Your task to perform on an android device: What's on my calendar today? Image 0: 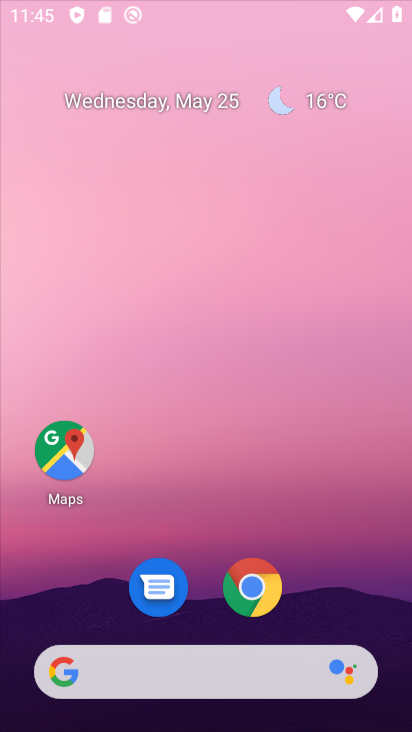
Step 0: click (303, 319)
Your task to perform on an android device: What's on my calendar today? Image 1: 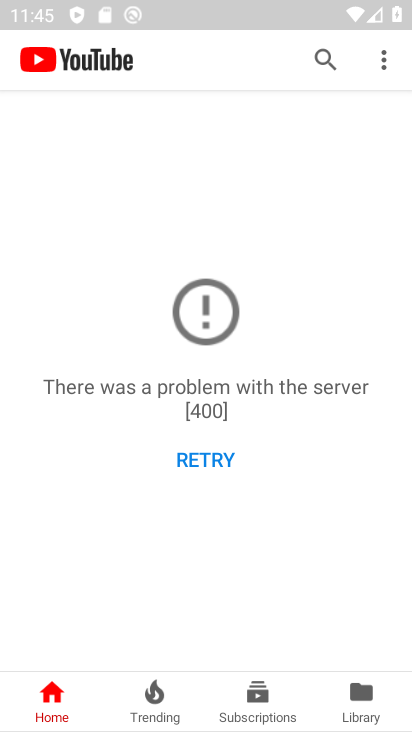
Step 1: press back button
Your task to perform on an android device: What's on my calendar today? Image 2: 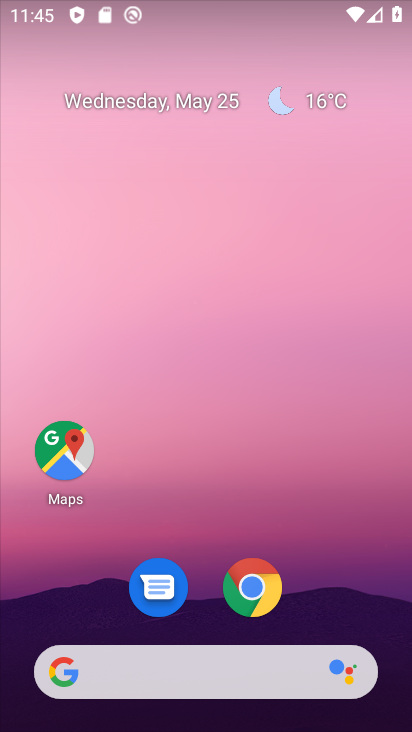
Step 2: drag from (166, 658) to (198, 292)
Your task to perform on an android device: What's on my calendar today? Image 3: 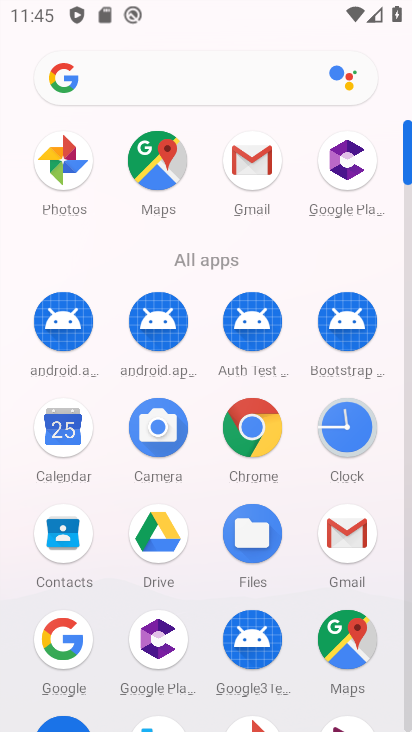
Step 3: click (60, 460)
Your task to perform on an android device: What's on my calendar today? Image 4: 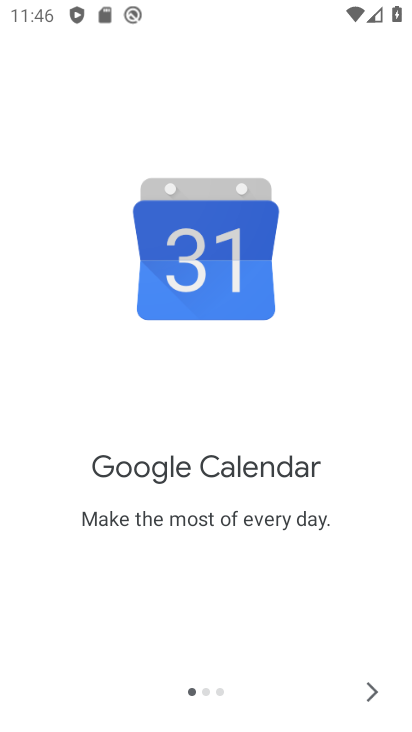
Step 4: click (303, 432)
Your task to perform on an android device: What's on my calendar today? Image 5: 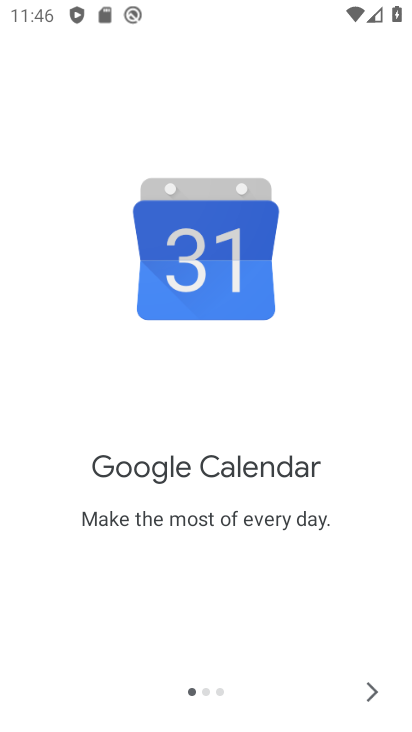
Step 5: click (361, 689)
Your task to perform on an android device: What's on my calendar today? Image 6: 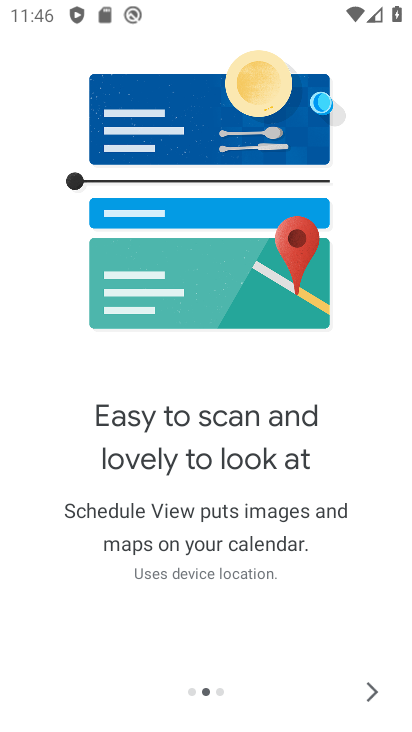
Step 6: click (361, 689)
Your task to perform on an android device: What's on my calendar today? Image 7: 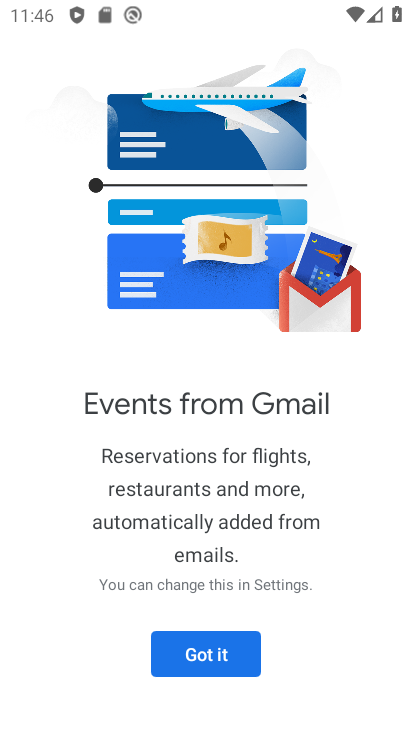
Step 7: click (202, 657)
Your task to perform on an android device: What's on my calendar today? Image 8: 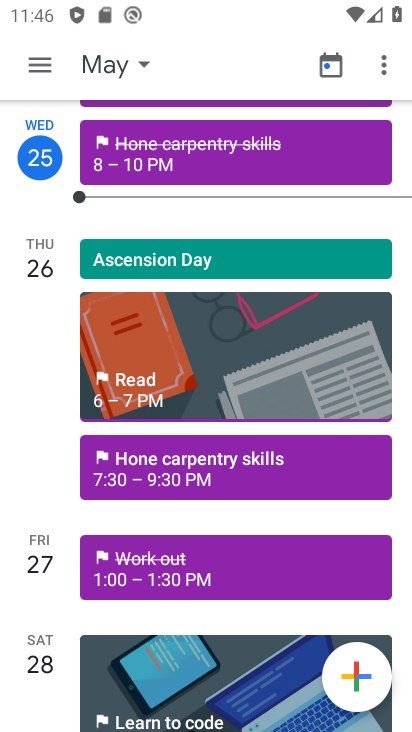
Step 8: task complete